Your task to perform on an android device: set default search engine in the chrome app Image 0: 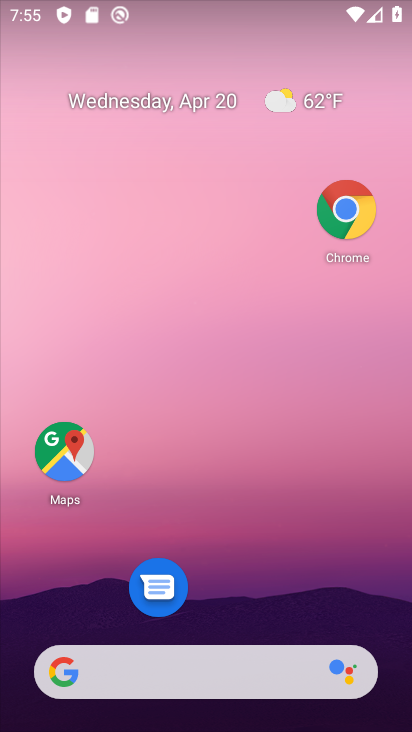
Step 0: click (344, 201)
Your task to perform on an android device: set default search engine in the chrome app Image 1: 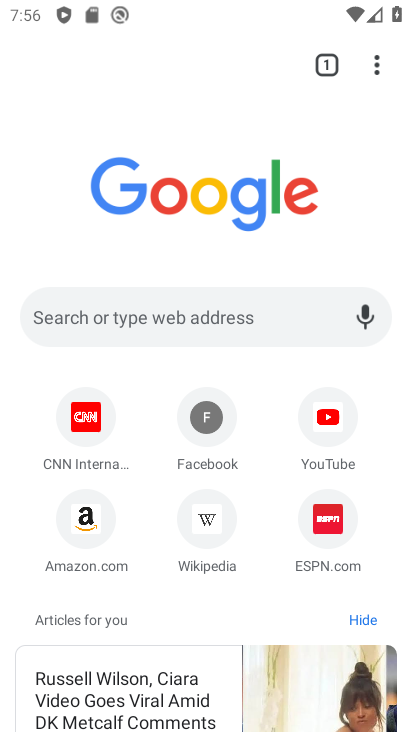
Step 1: click (376, 57)
Your task to perform on an android device: set default search engine in the chrome app Image 2: 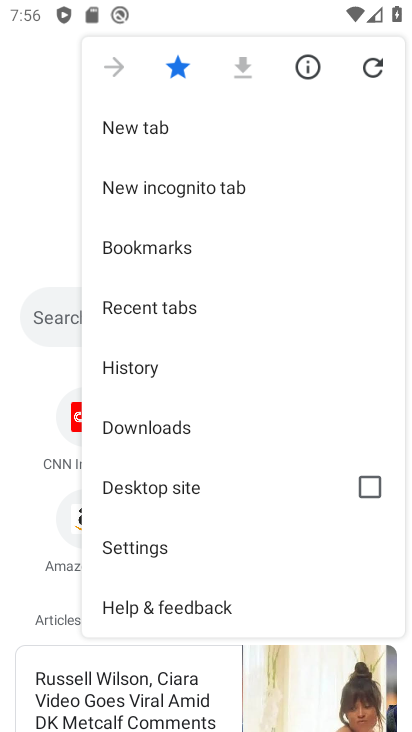
Step 2: click (186, 555)
Your task to perform on an android device: set default search engine in the chrome app Image 3: 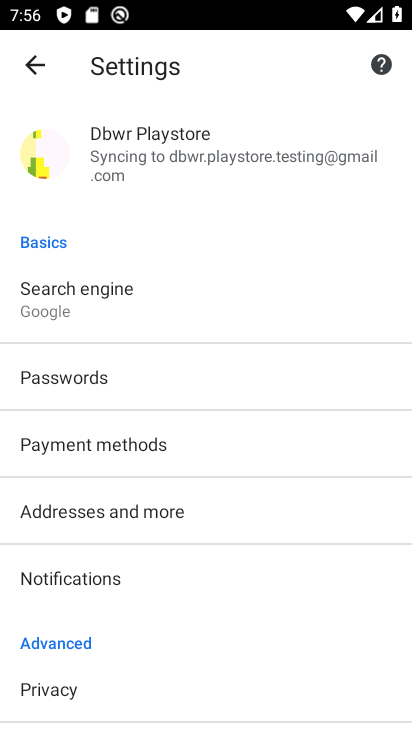
Step 3: click (127, 317)
Your task to perform on an android device: set default search engine in the chrome app Image 4: 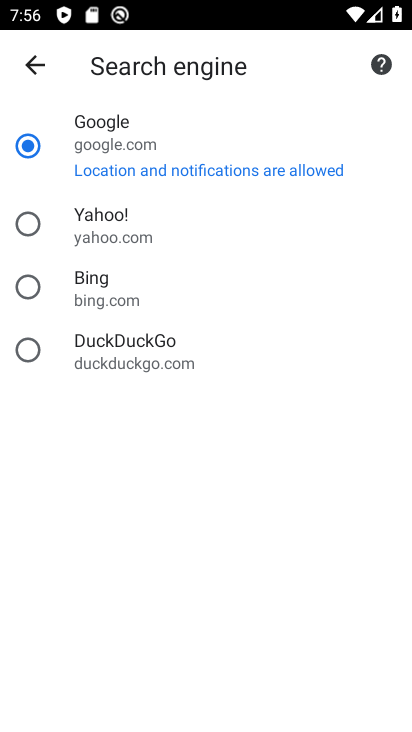
Step 4: click (150, 356)
Your task to perform on an android device: set default search engine in the chrome app Image 5: 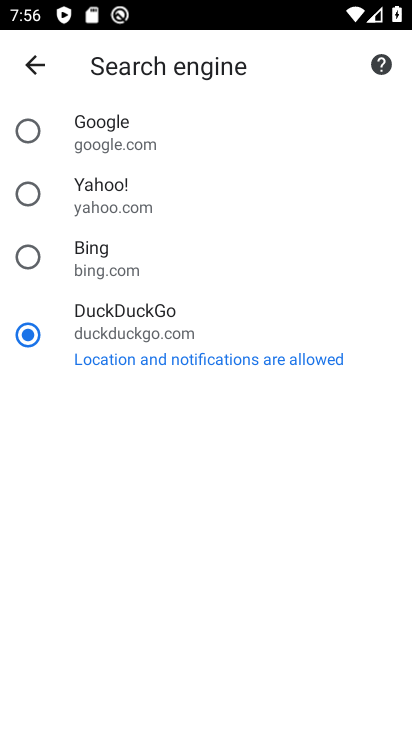
Step 5: task complete